Your task to perform on an android device: Set the phone to "Do not disturb". Image 0: 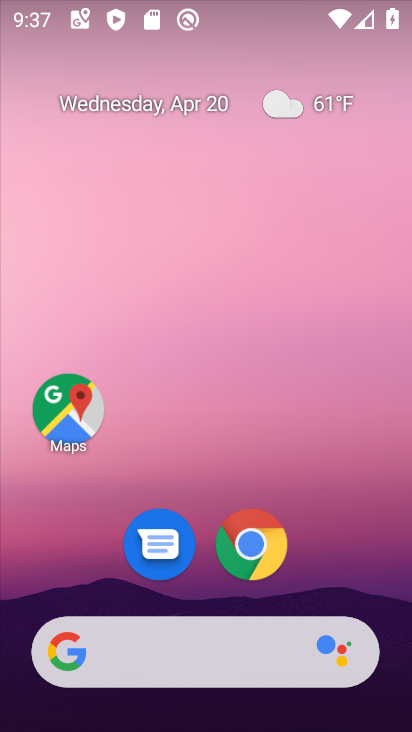
Step 0: drag from (287, 7) to (207, 516)
Your task to perform on an android device: Set the phone to "Do not disturb". Image 1: 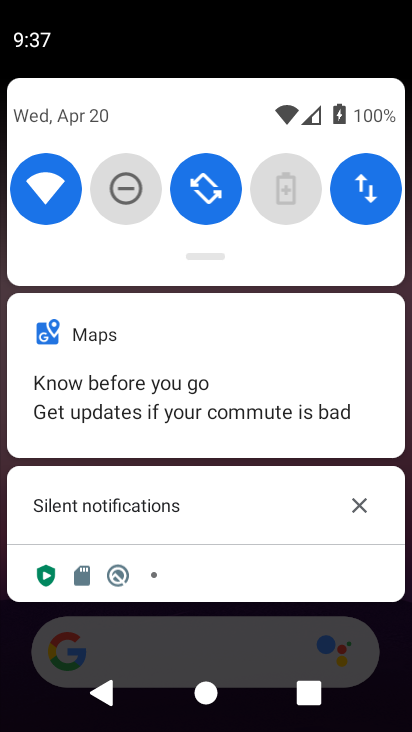
Step 1: click (123, 182)
Your task to perform on an android device: Set the phone to "Do not disturb". Image 2: 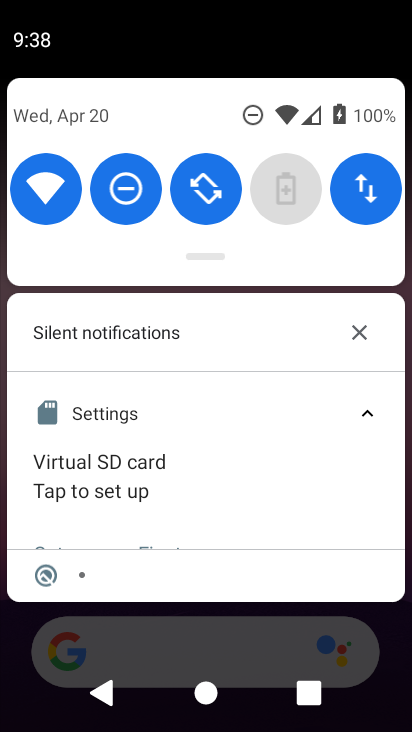
Step 2: task complete